Your task to perform on an android device: Open ESPN.com Image 0: 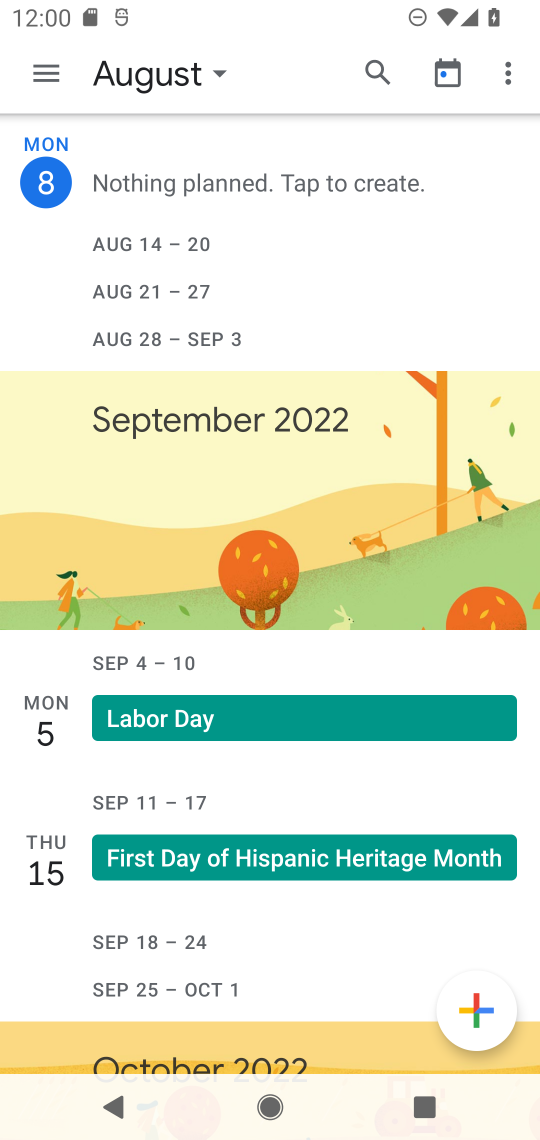
Step 0: press home button
Your task to perform on an android device: Open ESPN.com Image 1: 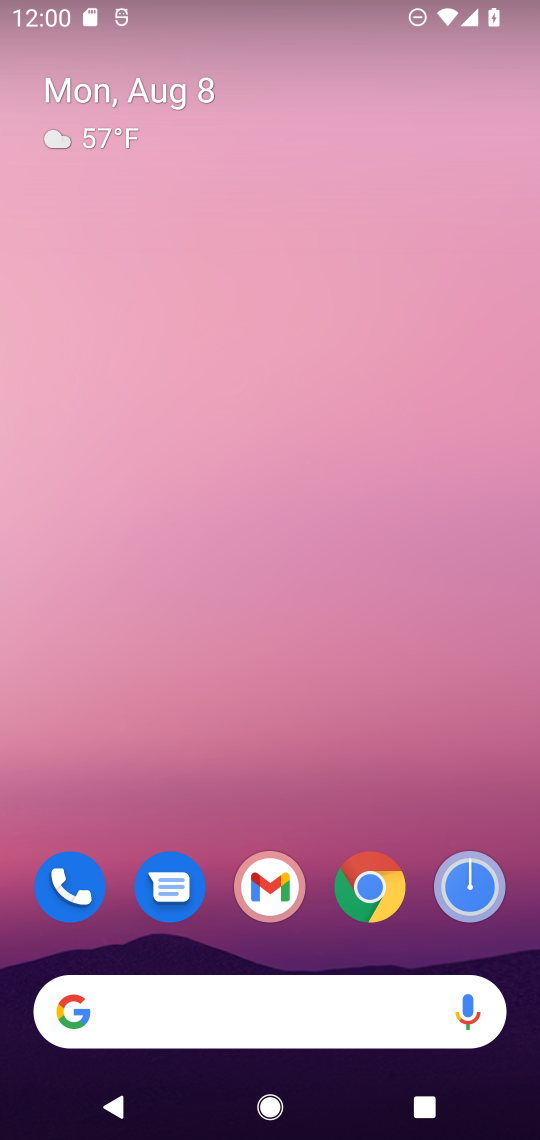
Step 1: click (374, 885)
Your task to perform on an android device: Open ESPN.com Image 2: 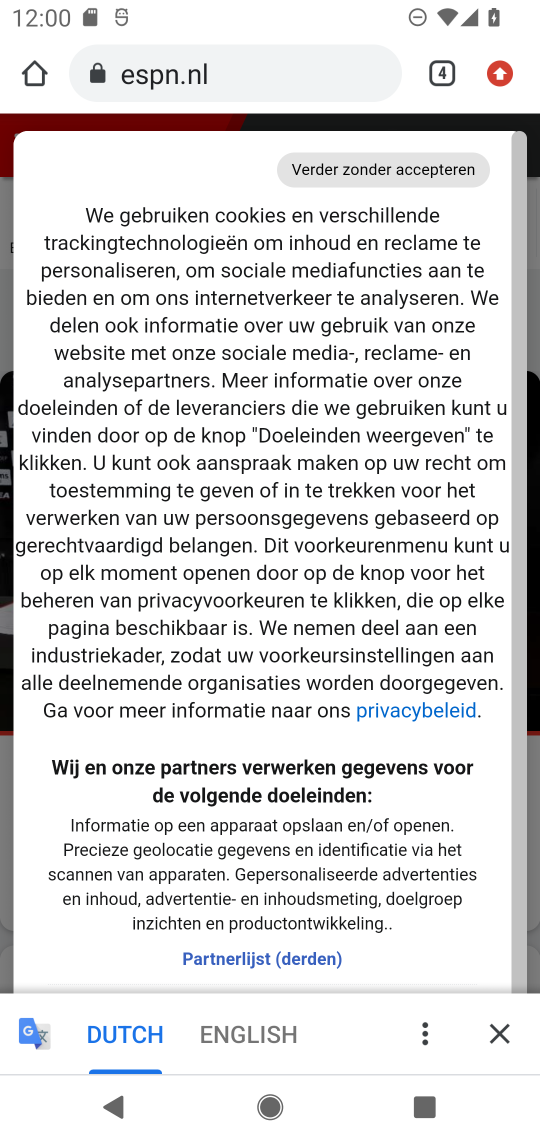
Step 2: drag from (368, 772) to (351, 250)
Your task to perform on an android device: Open ESPN.com Image 3: 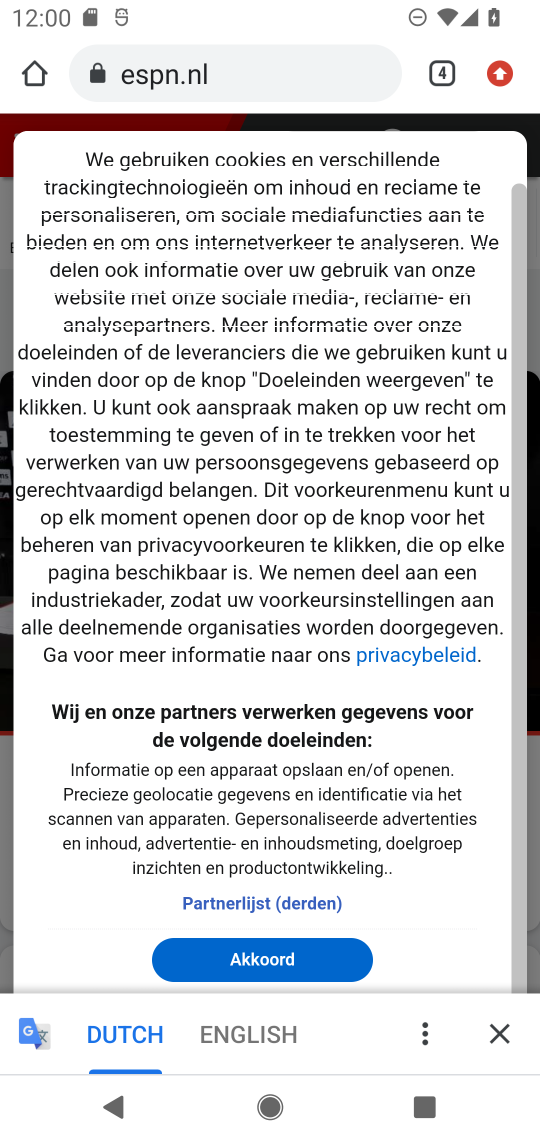
Step 3: click (275, 955)
Your task to perform on an android device: Open ESPN.com Image 4: 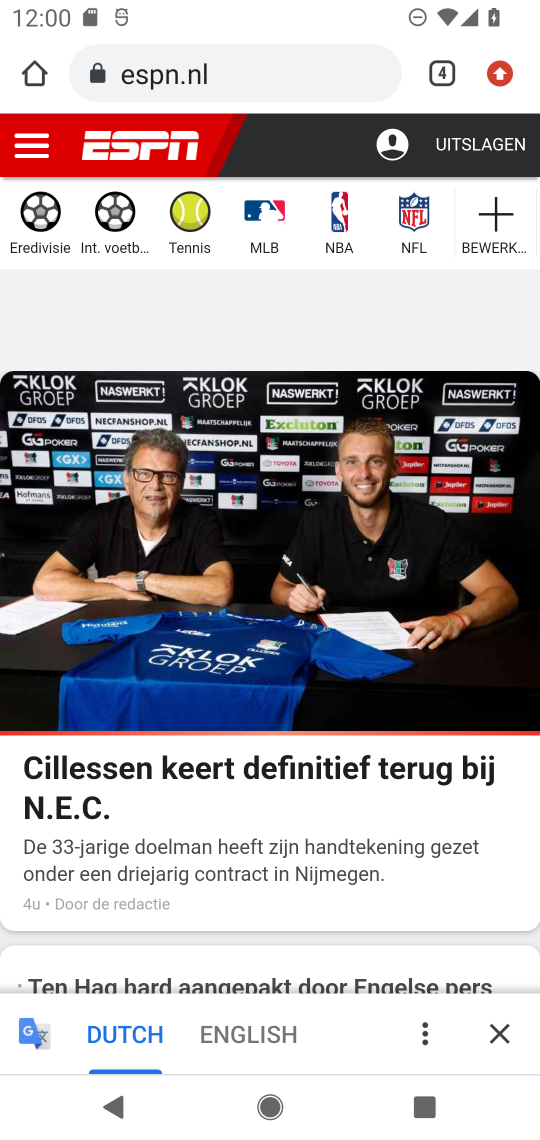
Step 4: task complete